Your task to perform on an android device: Toggle the flashlight Image 0: 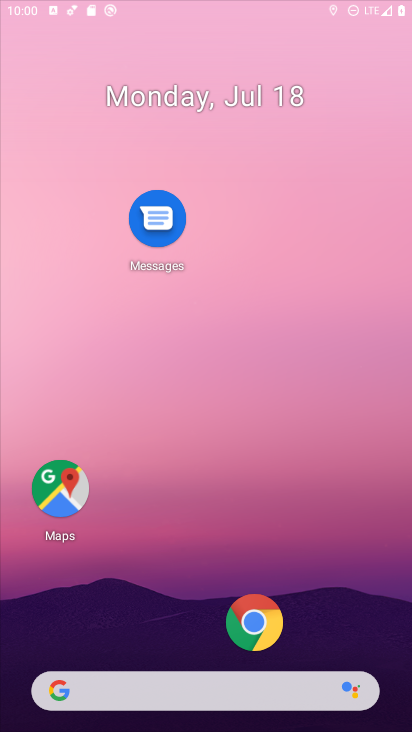
Step 0: drag from (245, 658) to (274, 135)
Your task to perform on an android device: Toggle the flashlight Image 1: 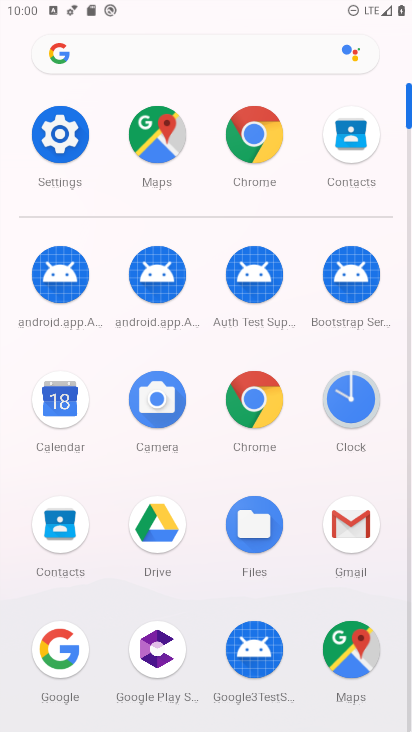
Step 1: task complete